Your task to perform on an android device: Go to ESPN.com Image 0: 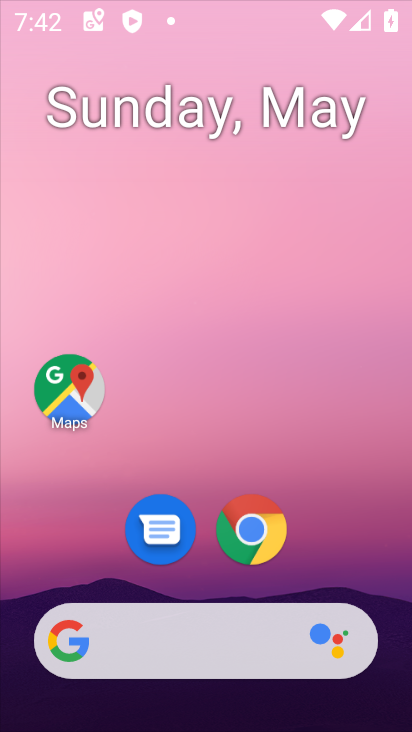
Step 0: click (349, 17)
Your task to perform on an android device: Go to ESPN.com Image 1: 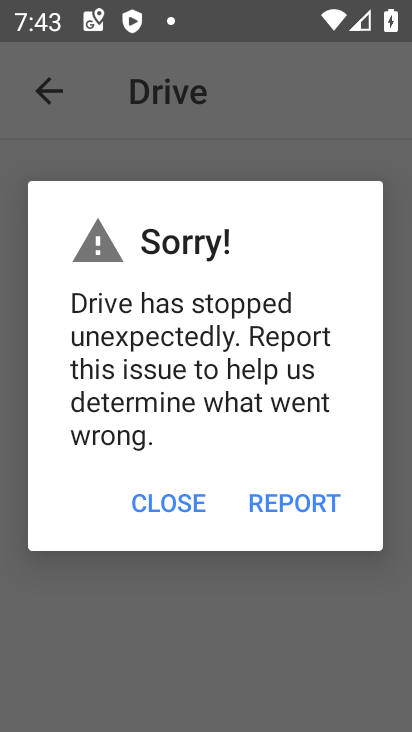
Step 1: press home button
Your task to perform on an android device: Go to ESPN.com Image 2: 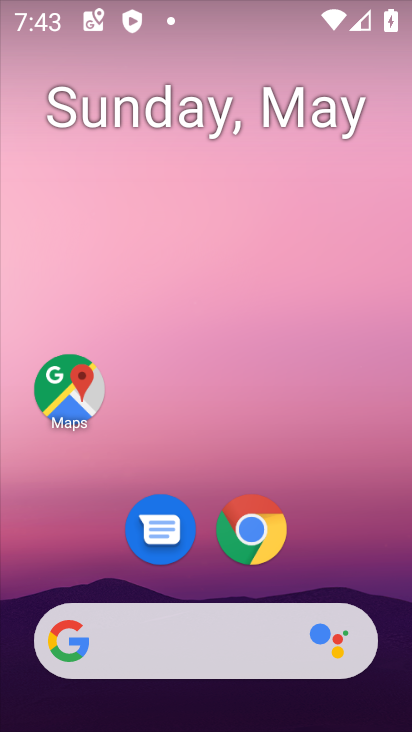
Step 2: click (253, 539)
Your task to perform on an android device: Go to ESPN.com Image 3: 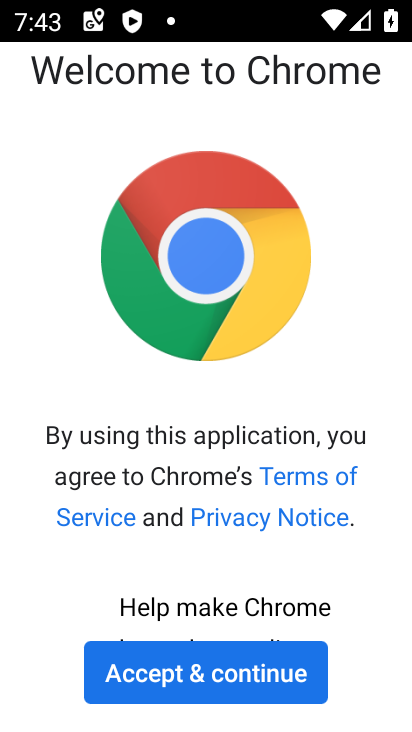
Step 3: click (206, 677)
Your task to perform on an android device: Go to ESPN.com Image 4: 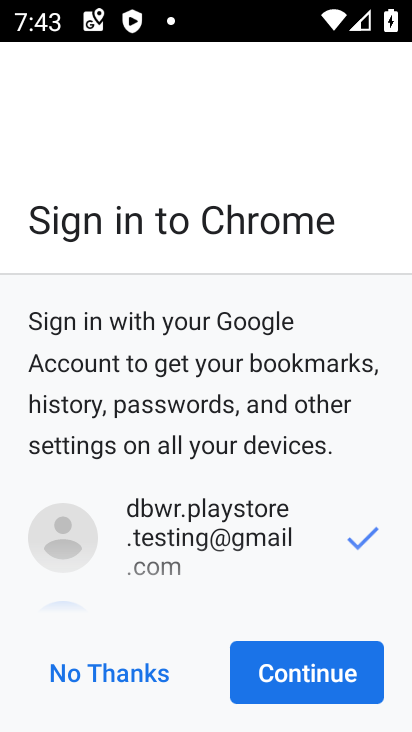
Step 4: click (117, 675)
Your task to perform on an android device: Go to ESPN.com Image 5: 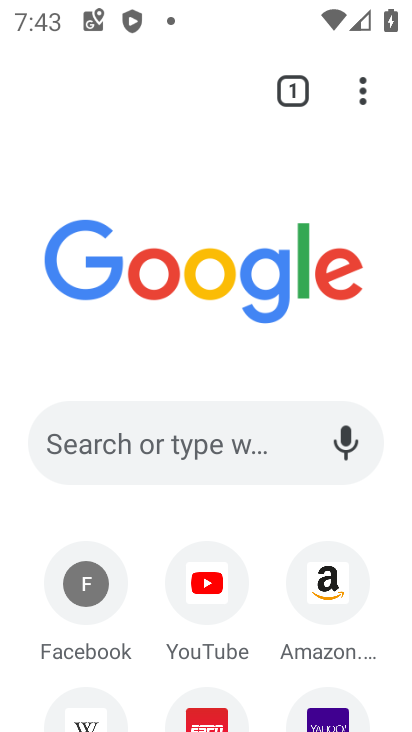
Step 5: drag from (388, 651) to (367, 465)
Your task to perform on an android device: Go to ESPN.com Image 6: 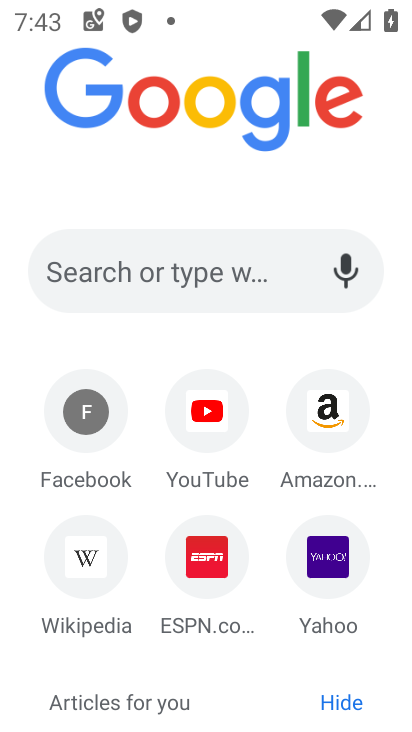
Step 6: click (203, 560)
Your task to perform on an android device: Go to ESPN.com Image 7: 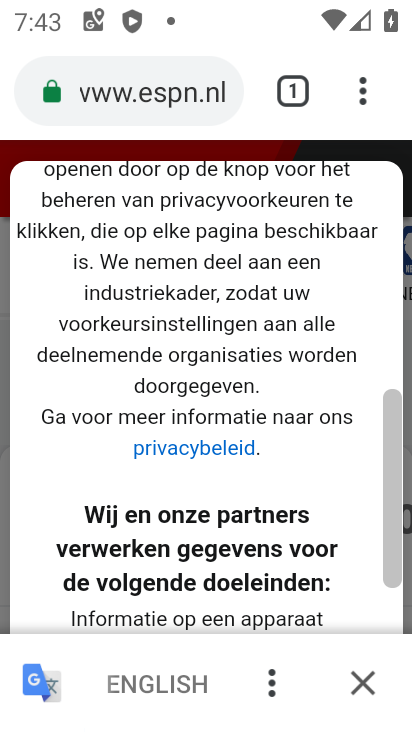
Step 7: task complete